Your task to perform on an android device: toggle priority inbox in the gmail app Image 0: 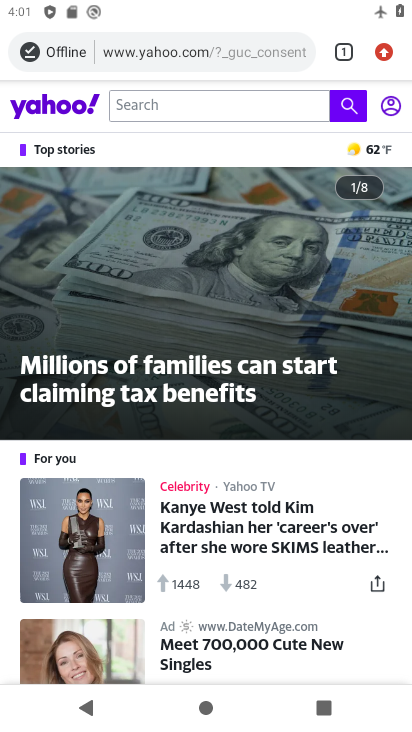
Step 0: press home button
Your task to perform on an android device: toggle priority inbox in the gmail app Image 1: 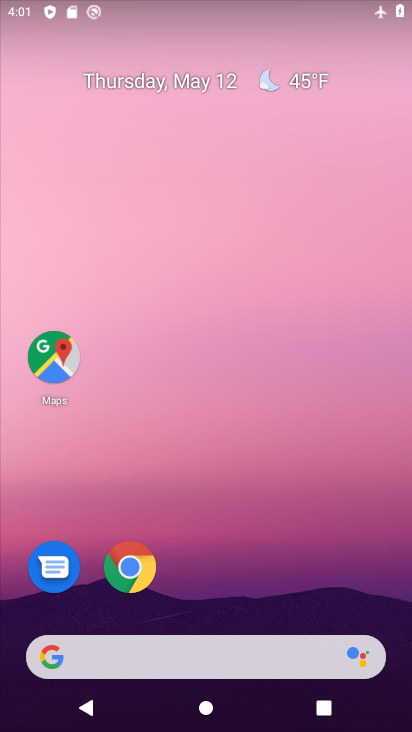
Step 1: drag from (239, 485) to (243, 187)
Your task to perform on an android device: toggle priority inbox in the gmail app Image 2: 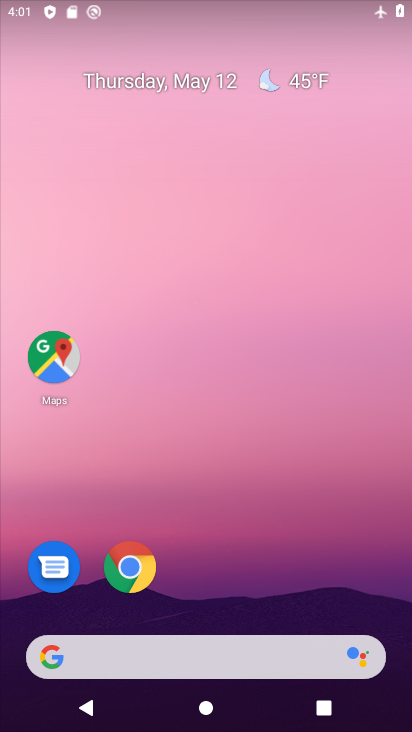
Step 2: drag from (258, 568) to (270, 134)
Your task to perform on an android device: toggle priority inbox in the gmail app Image 3: 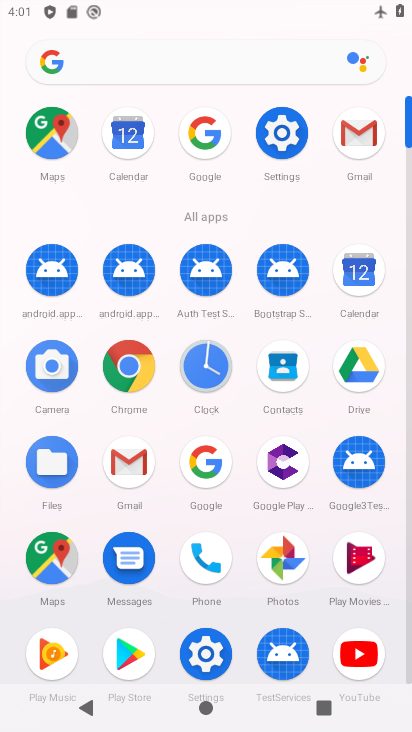
Step 3: click (357, 145)
Your task to perform on an android device: toggle priority inbox in the gmail app Image 4: 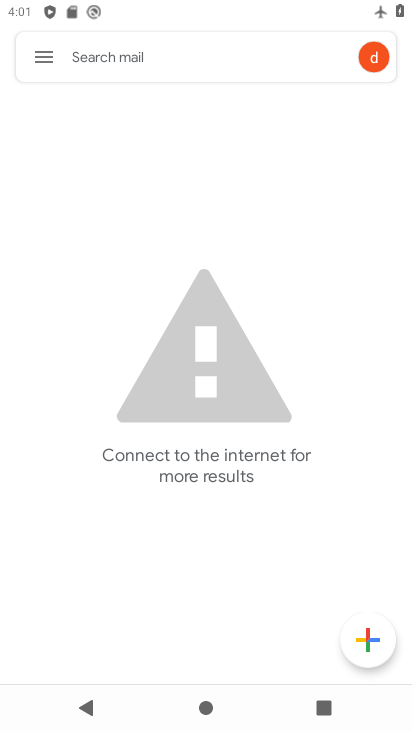
Step 4: click (31, 59)
Your task to perform on an android device: toggle priority inbox in the gmail app Image 5: 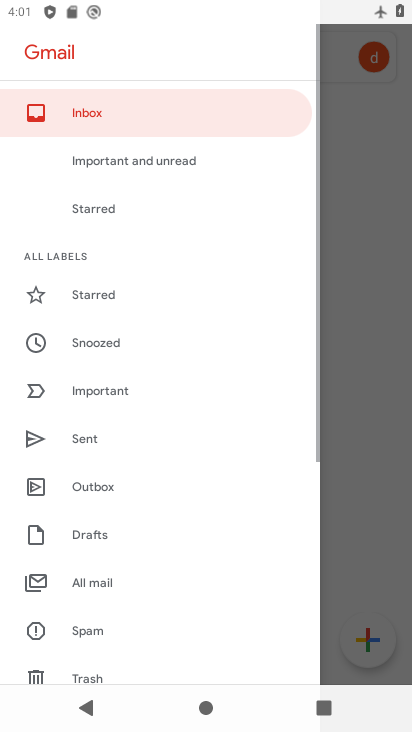
Step 5: drag from (180, 585) to (196, 276)
Your task to perform on an android device: toggle priority inbox in the gmail app Image 6: 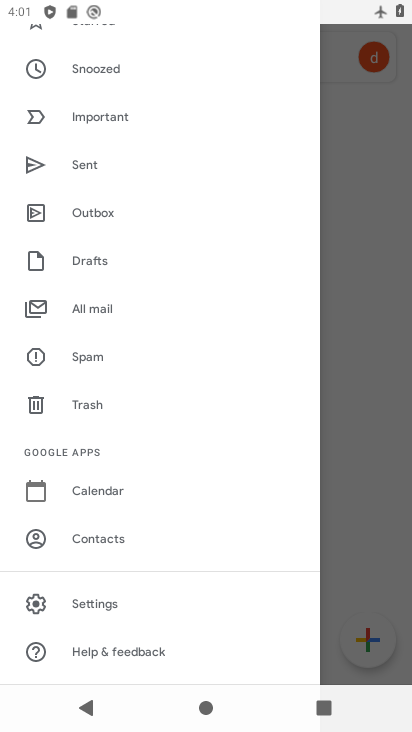
Step 6: click (139, 591)
Your task to perform on an android device: toggle priority inbox in the gmail app Image 7: 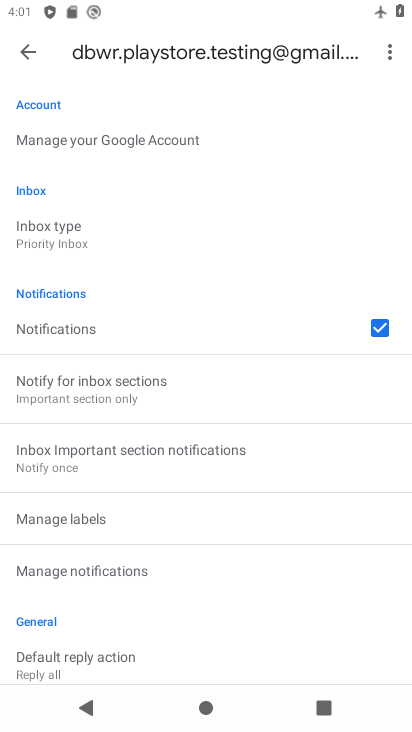
Step 7: click (97, 241)
Your task to perform on an android device: toggle priority inbox in the gmail app Image 8: 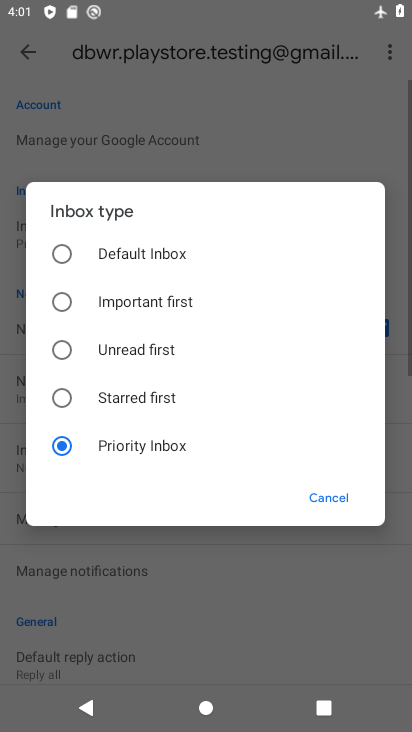
Step 8: click (109, 245)
Your task to perform on an android device: toggle priority inbox in the gmail app Image 9: 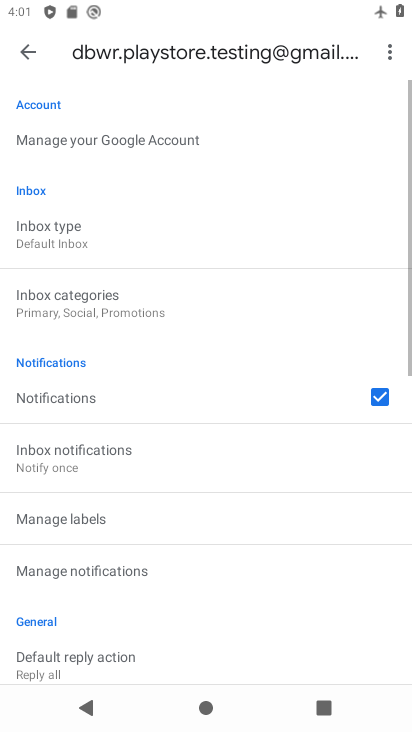
Step 9: task complete